Your task to perform on an android device: change the clock display to digital Image 0: 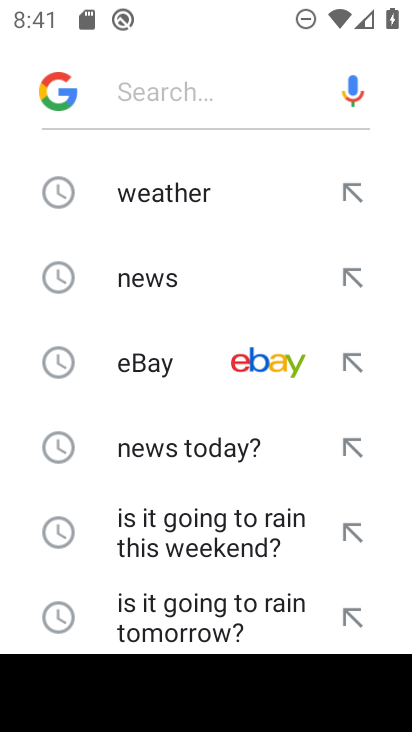
Step 0: press back button
Your task to perform on an android device: change the clock display to digital Image 1: 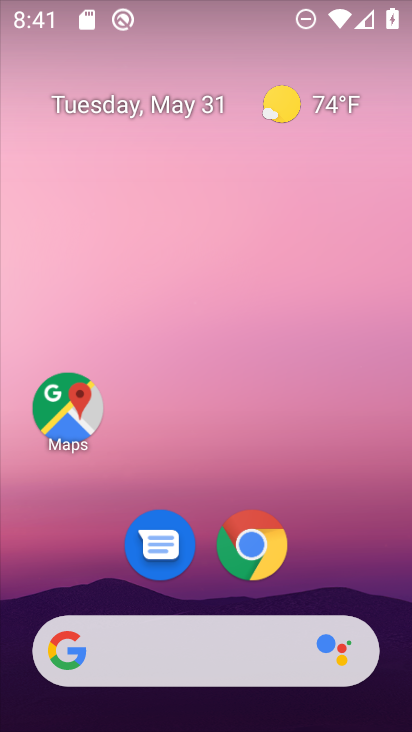
Step 1: drag from (341, 579) to (237, 7)
Your task to perform on an android device: change the clock display to digital Image 2: 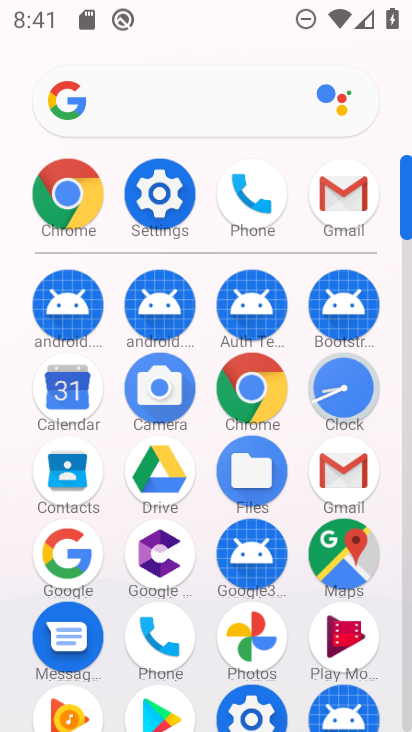
Step 2: drag from (3, 613) to (24, 227)
Your task to perform on an android device: change the clock display to digital Image 3: 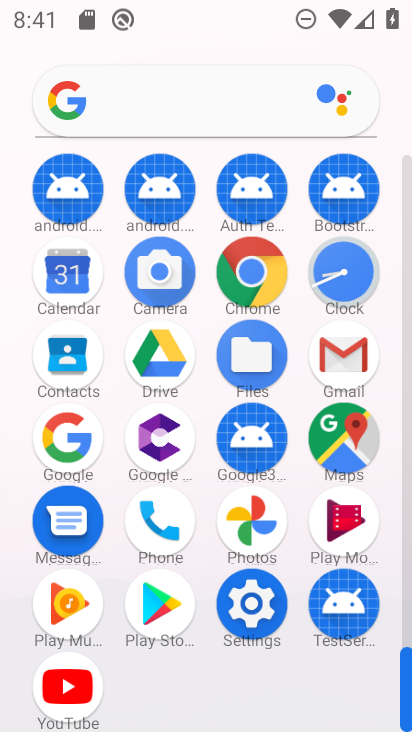
Step 3: click (342, 268)
Your task to perform on an android device: change the clock display to digital Image 4: 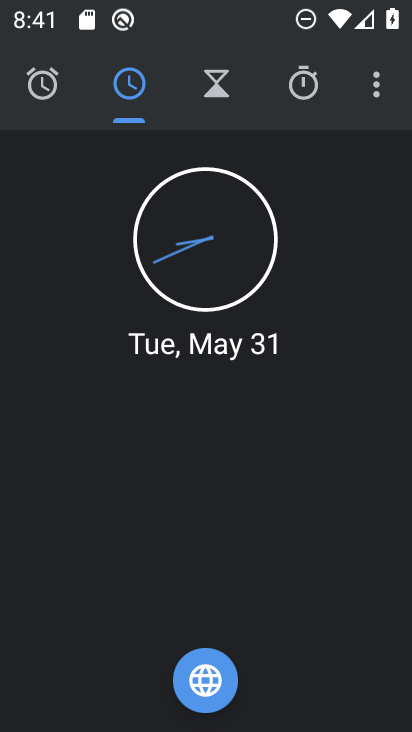
Step 4: drag from (380, 76) to (301, 170)
Your task to perform on an android device: change the clock display to digital Image 5: 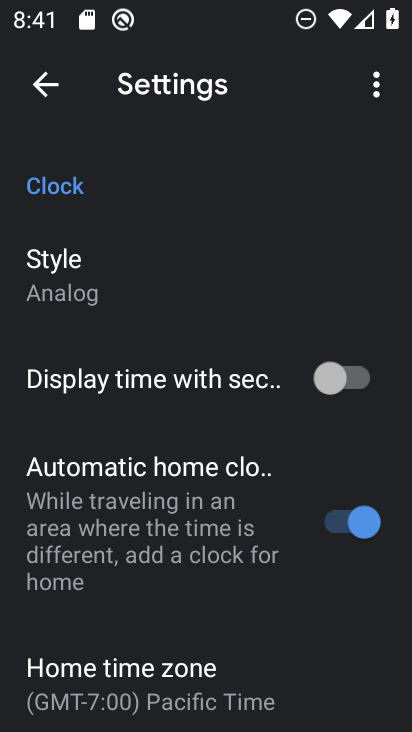
Step 5: drag from (153, 601) to (143, 152)
Your task to perform on an android device: change the clock display to digital Image 6: 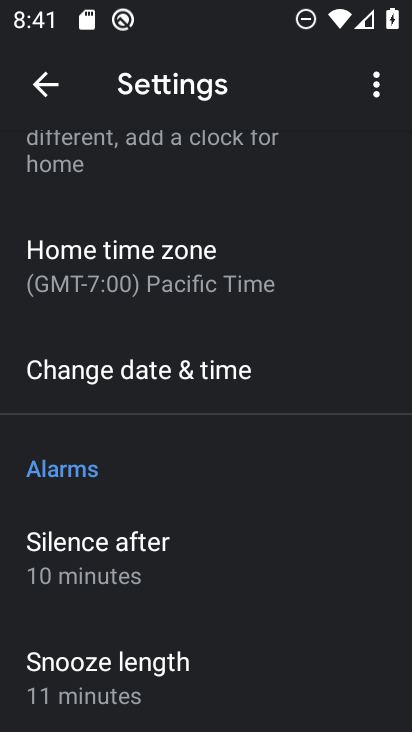
Step 6: drag from (149, 150) to (173, 680)
Your task to perform on an android device: change the clock display to digital Image 7: 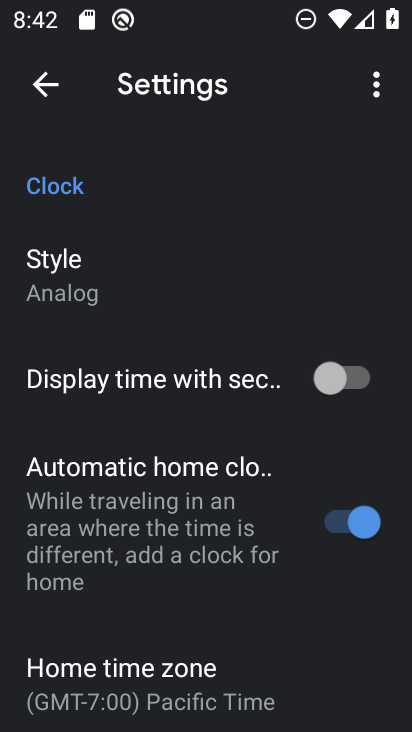
Step 7: click (102, 277)
Your task to perform on an android device: change the clock display to digital Image 8: 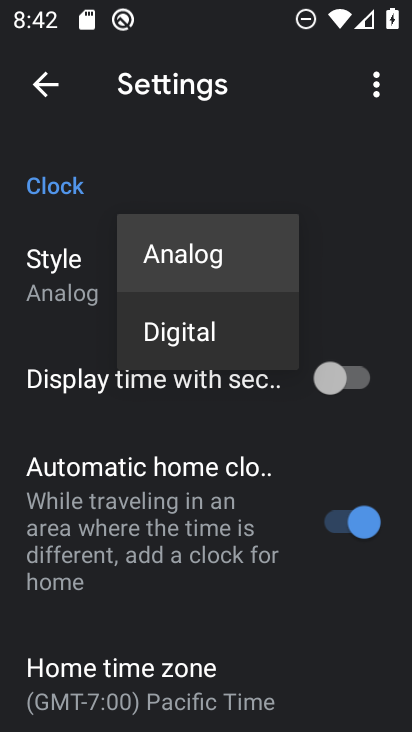
Step 8: click (162, 323)
Your task to perform on an android device: change the clock display to digital Image 9: 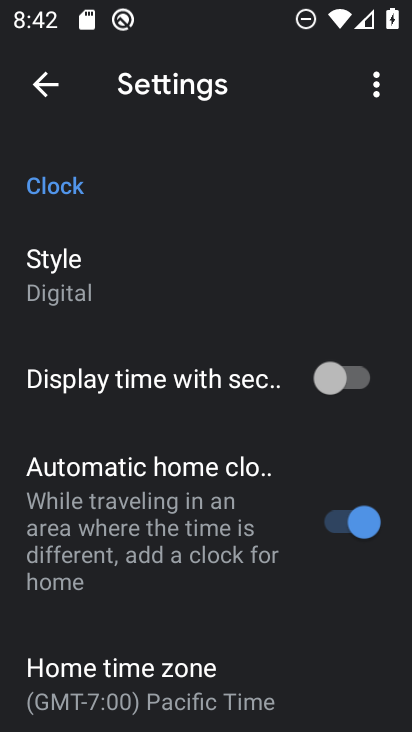
Step 9: task complete